Your task to perform on an android device: check google app version Image 0: 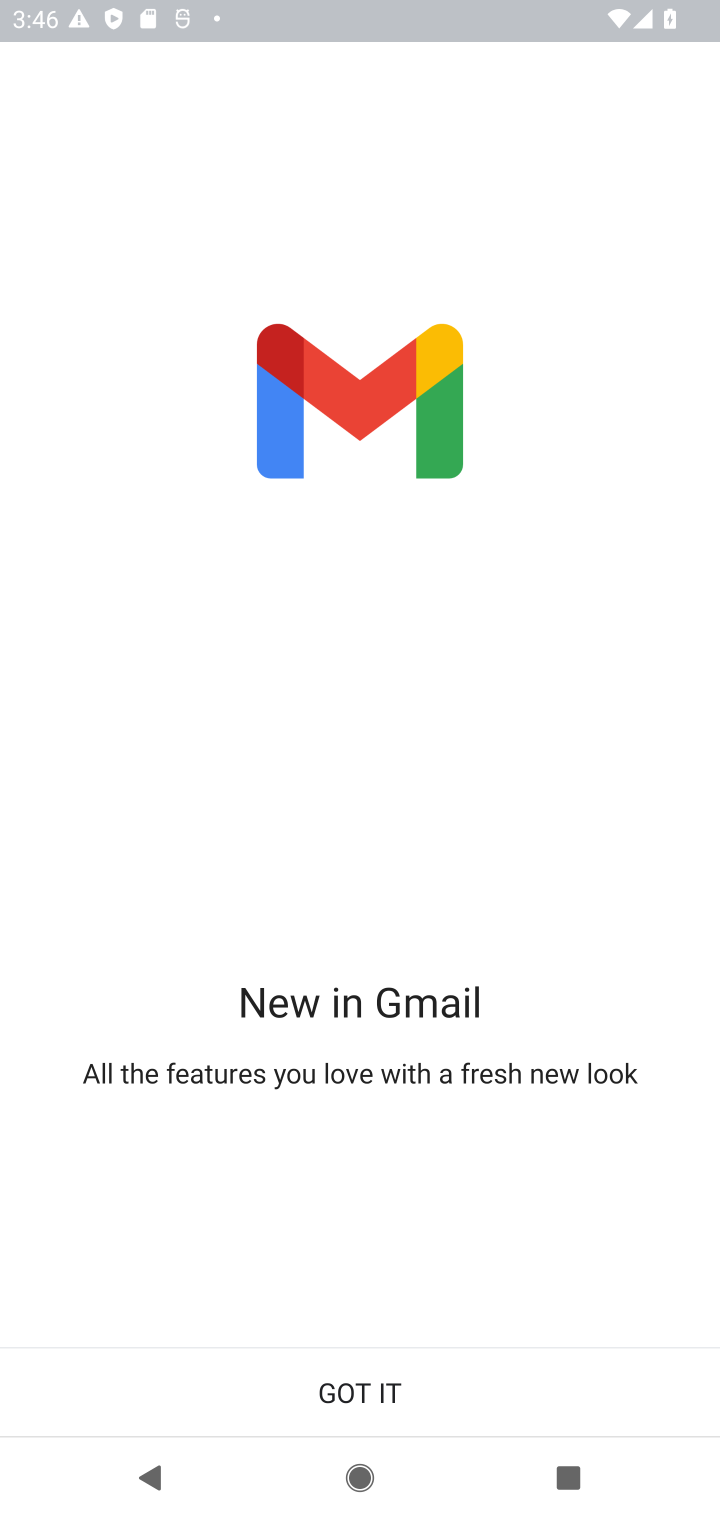
Step 0: press home button
Your task to perform on an android device: check google app version Image 1: 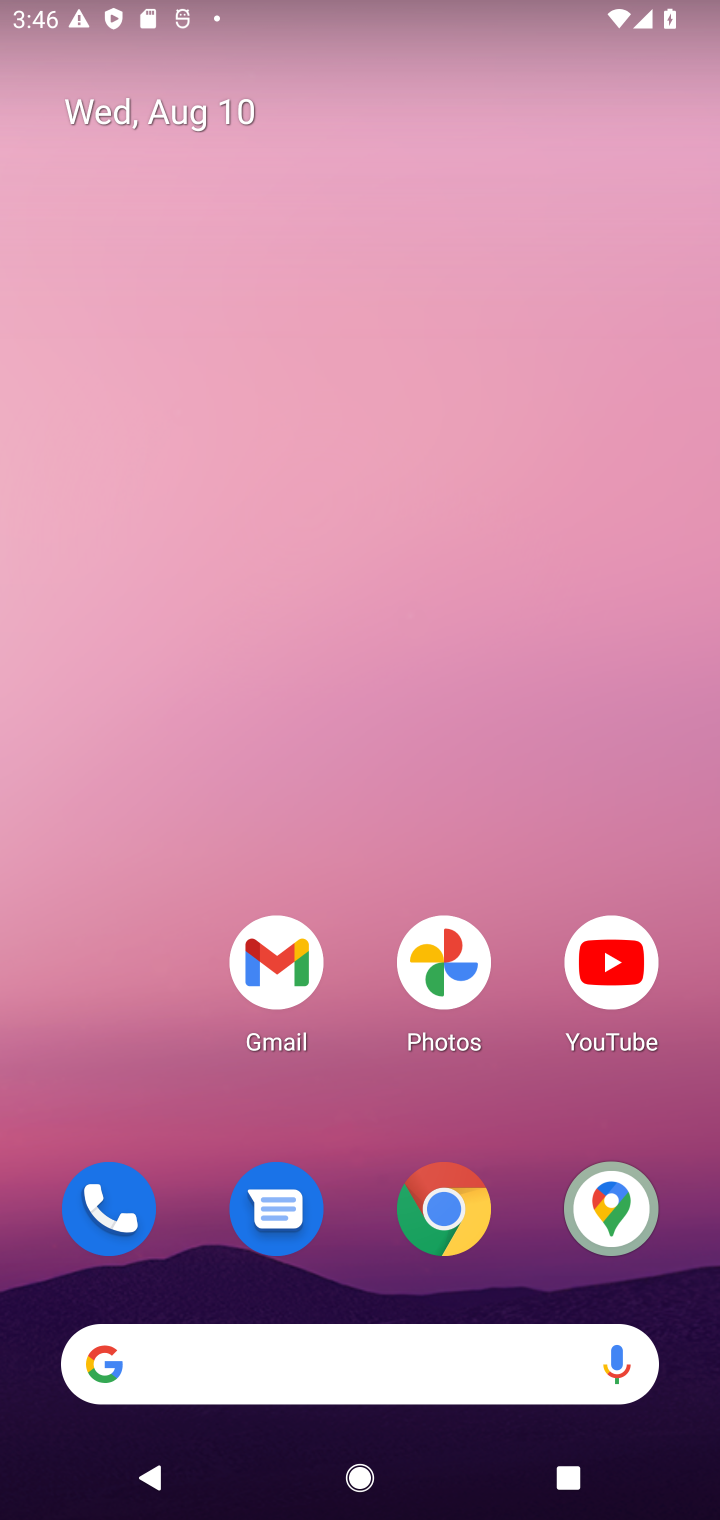
Step 1: click (419, 1381)
Your task to perform on an android device: check google app version Image 2: 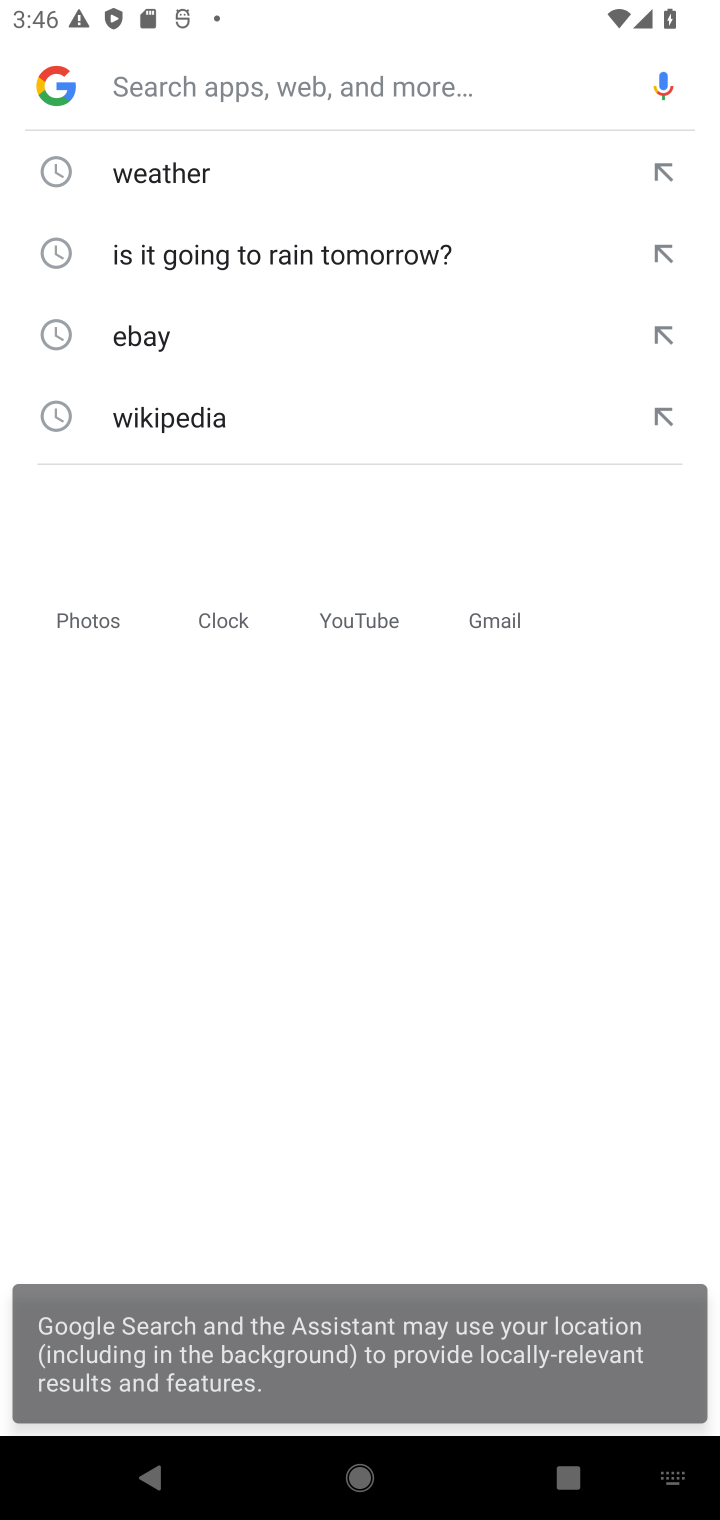
Step 2: click (57, 91)
Your task to perform on an android device: check google app version Image 3: 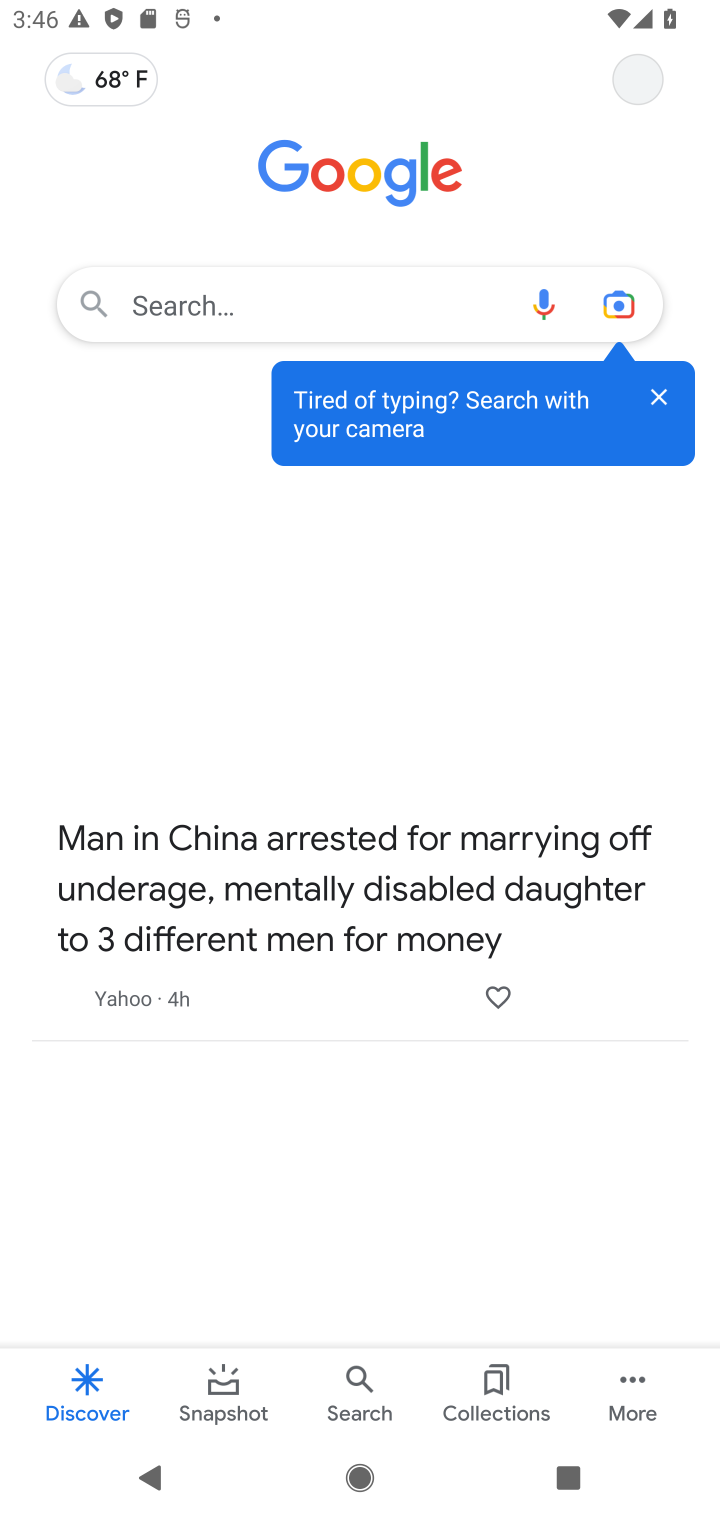
Step 3: click (621, 1396)
Your task to perform on an android device: check google app version Image 4: 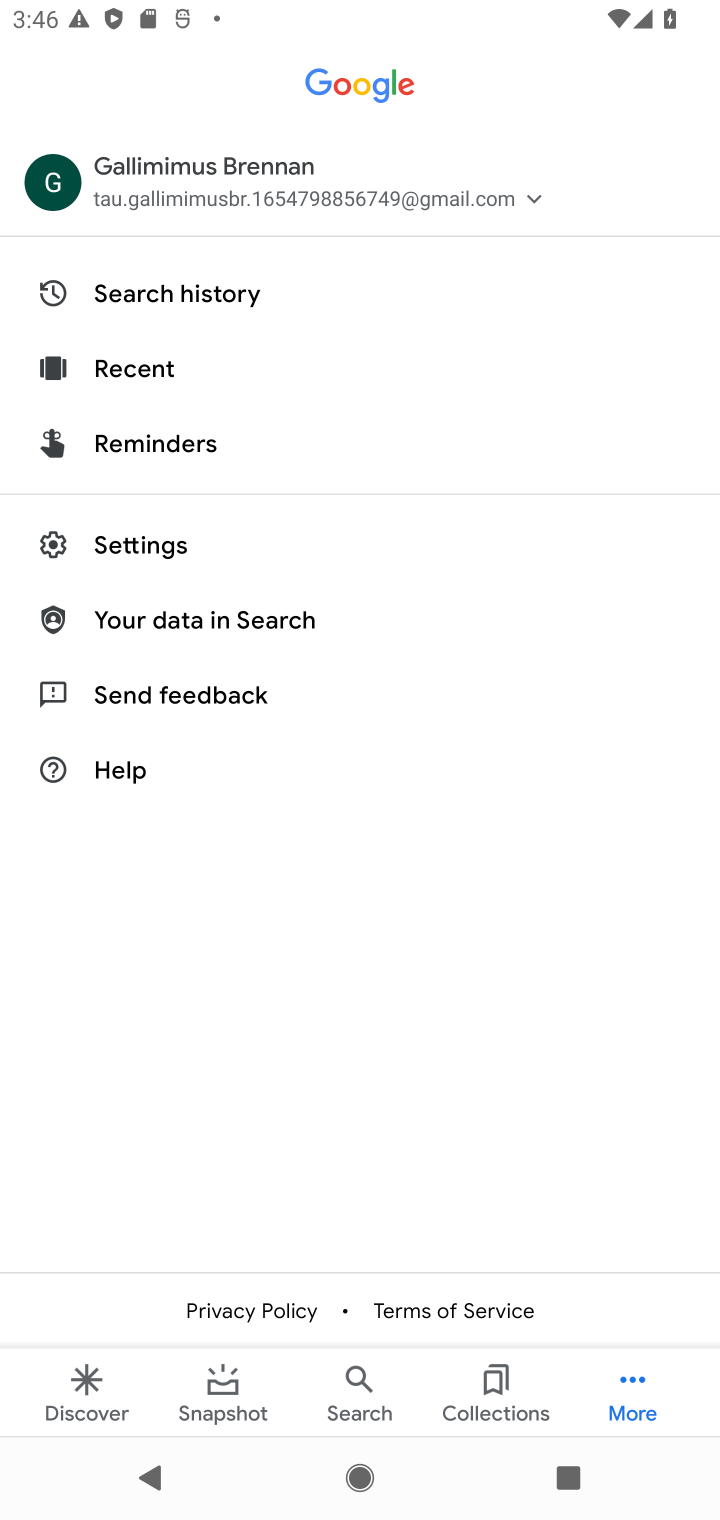
Step 4: click (204, 556)
Your task to perform on an android device: check google app version Image 5: 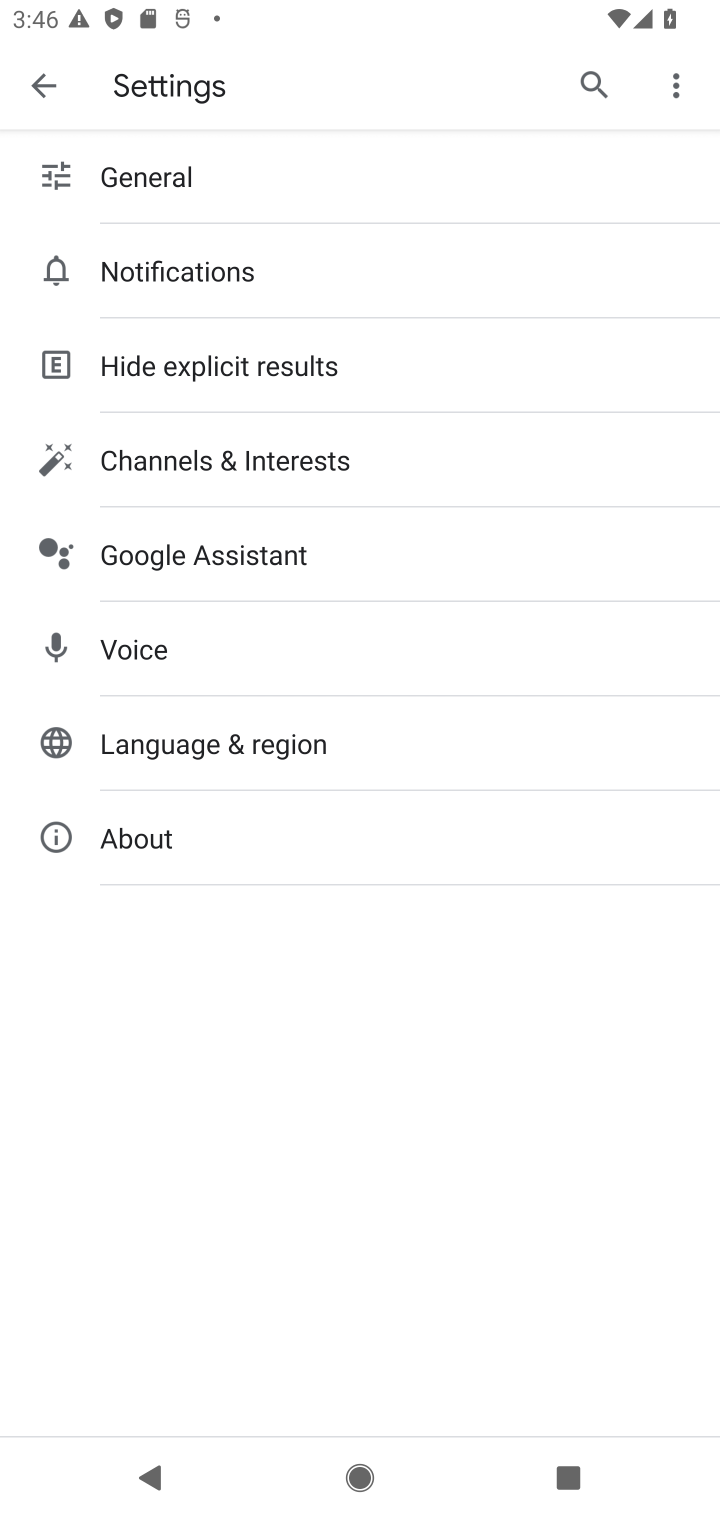
Step 5: click (275, 861)
Your task to perform on an android device: check google app version Image 6: 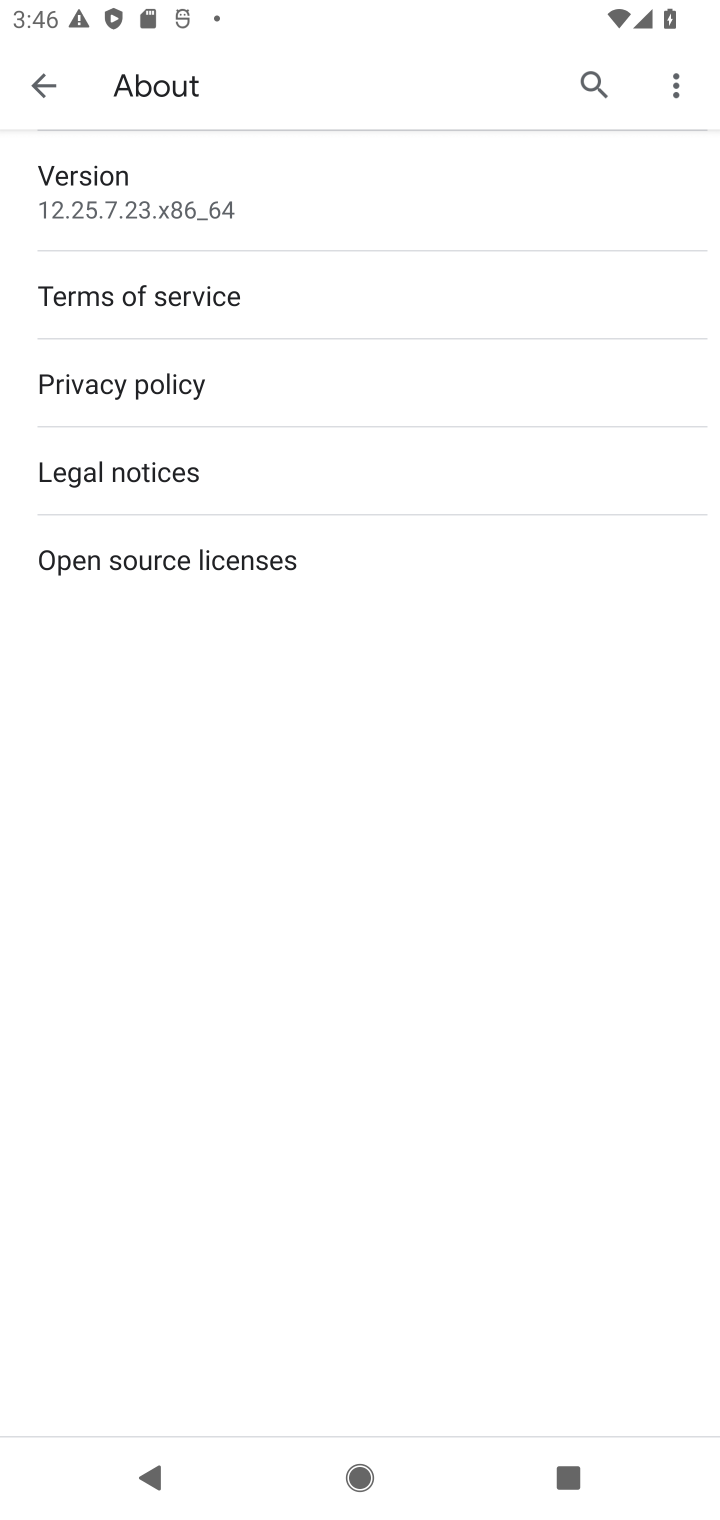
Step 6: click (168, 174)
Your task to perform on an android device: check google app version Image 7: 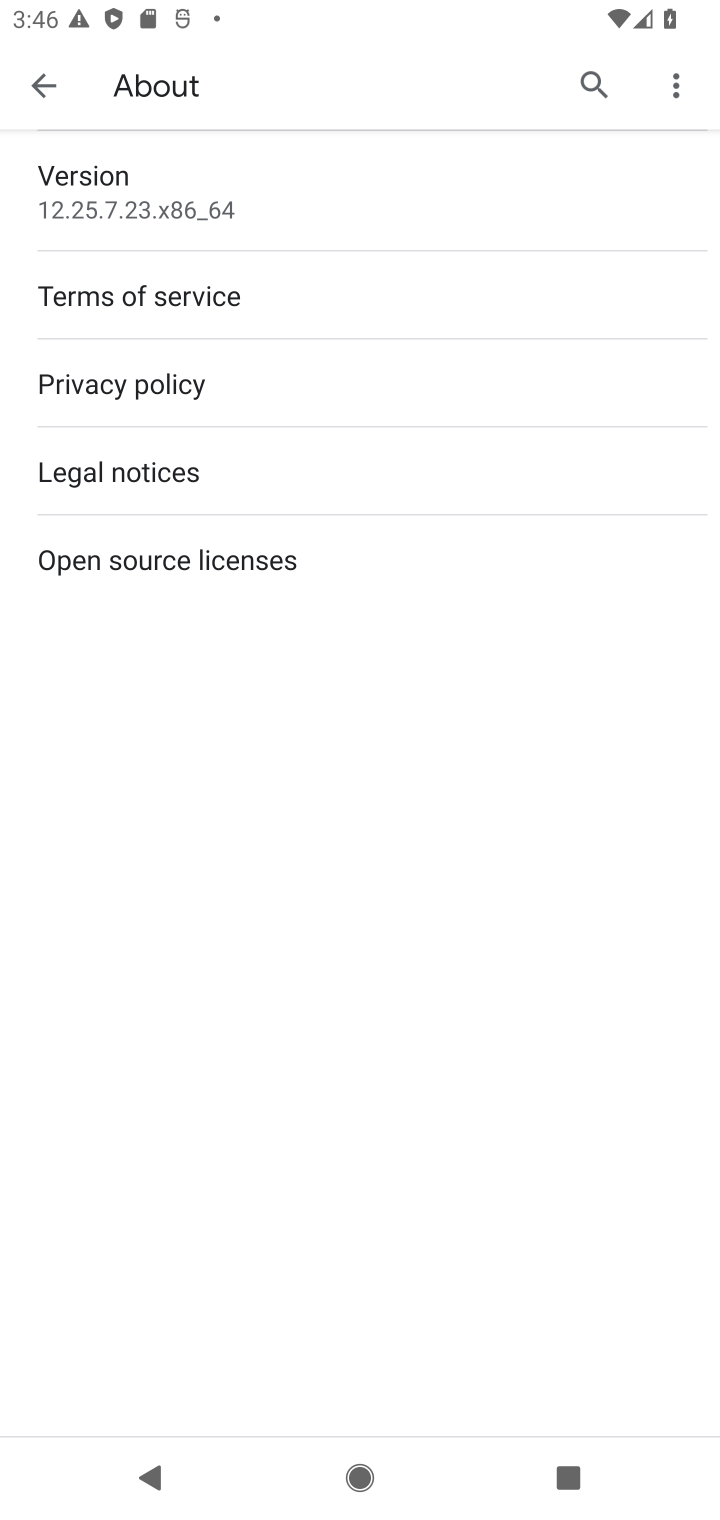
Step 7: task complete